Your task to perform on an android device: open wifi settings Image 0: 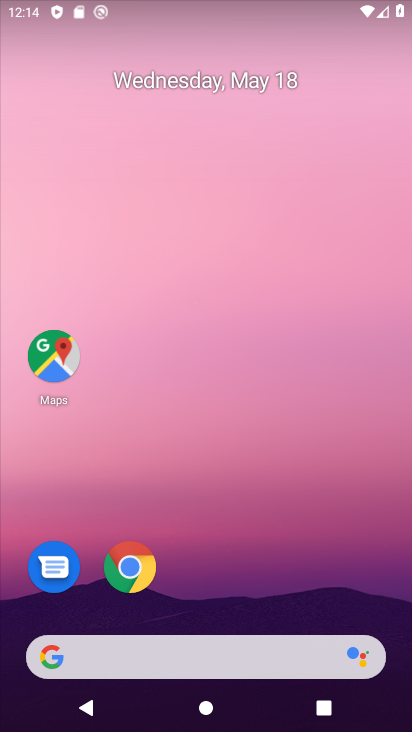
Step 0: drag from (312, 555) to (330, 126)
Your task to perform on an android device: open wifi settings Image 1: 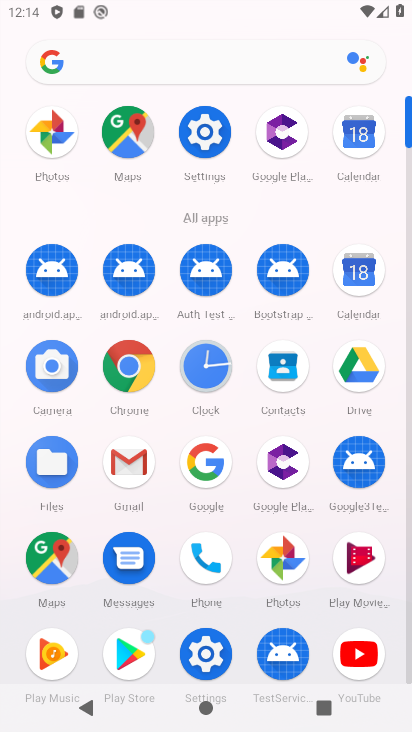
Step 1: click (199, 145)
Your task to perform on an android device: open wifi settings Image 2: 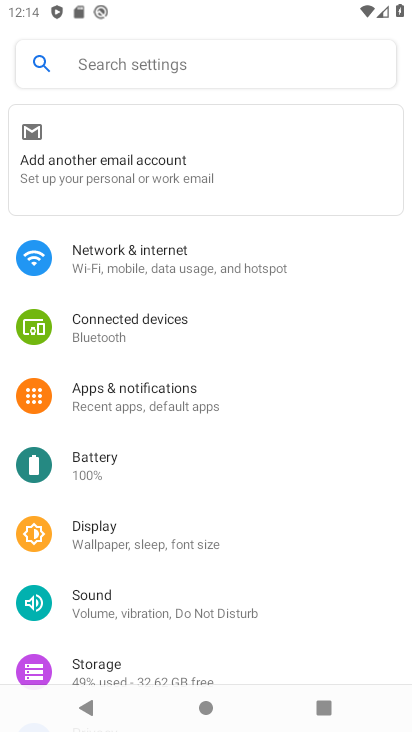
Step 2: click (136, 259)
Your task to perform on an android device: open wifi settings Image 3: 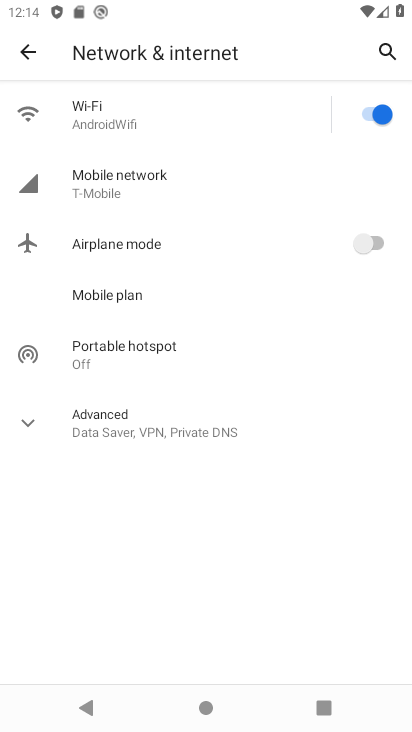
Step 3: click (150, 111)
Your task to perform on an android device: open wifi settings Image 4: 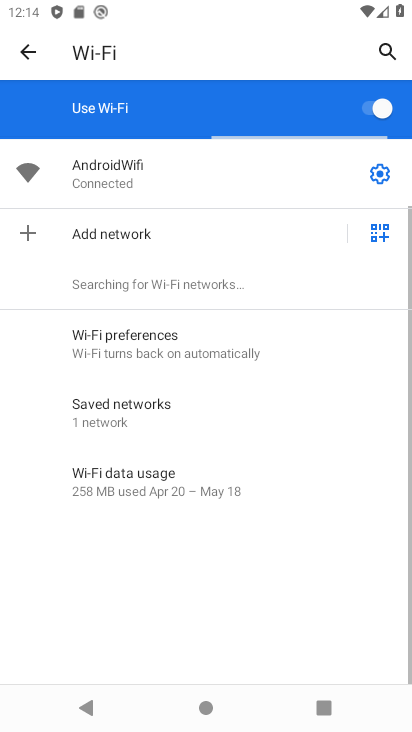
Step 4: click (380, 171)
Your task to perform on an android device: open wifi settings Image 5: 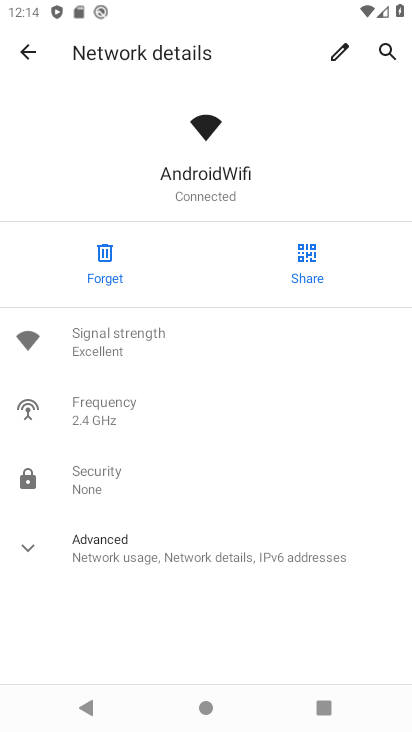
Step 5: task complete